Your task to perform on an android device: Search for sushi restaurants on Maps Image 0: 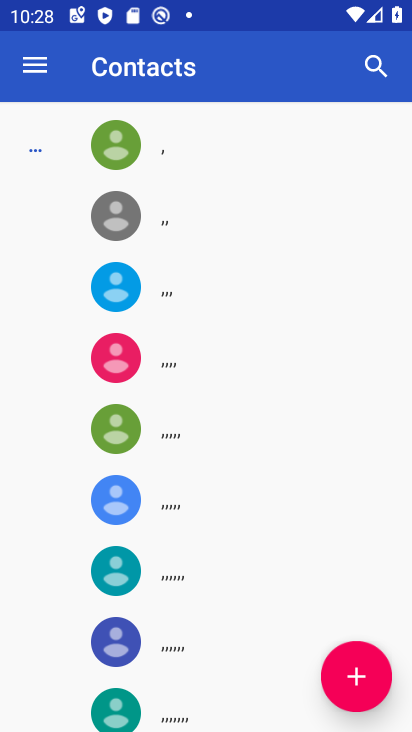
Step 0: press home button
Your task to perform on an android device: Search for sushi restaurants on Maps Image 1: 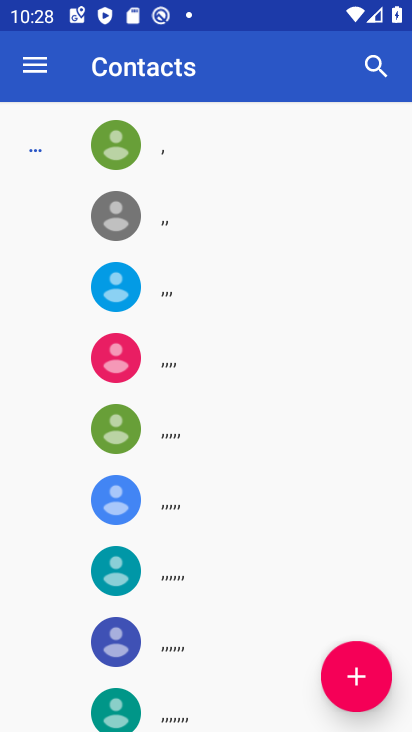
Step 1: press home button
Your task to perform on an android device: Search for sushi restaurants on Maps Image 2: 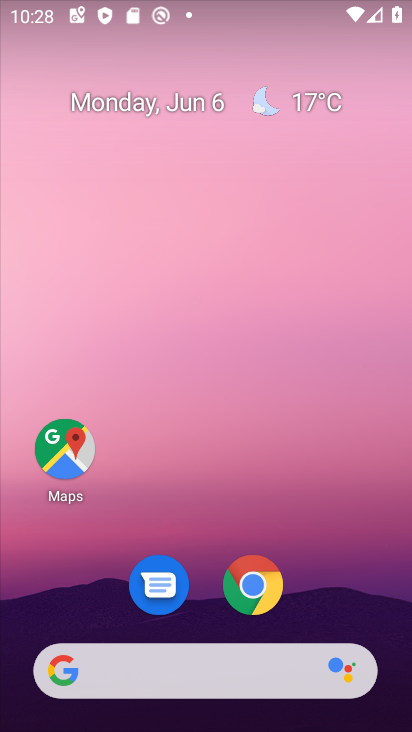
Step 2: click (51, 448)
Your task to perform on an android device: Search for sushi restaurants on Maps Image 3: 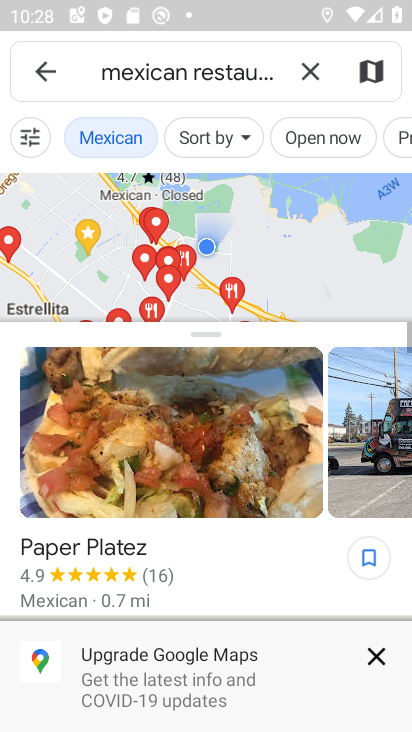
Step 3: click (314, 68)
Your task to perform on an android device: Search for sushi restaurants on Maps Image 4: 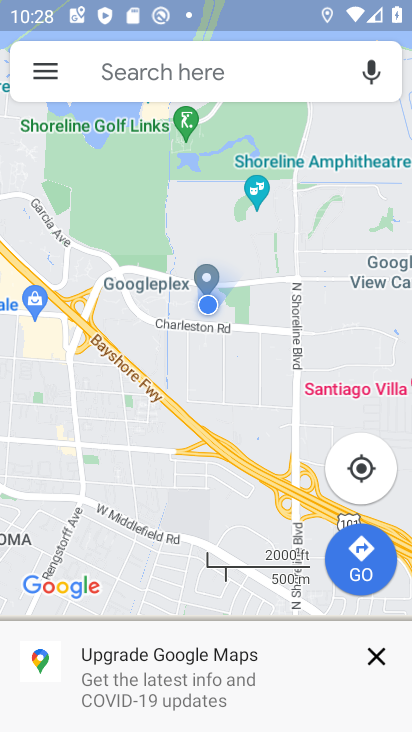
Step 4: click (248, 65)
Your task to perform on an android device: Search for sushi restaurants on Maps Image 5: 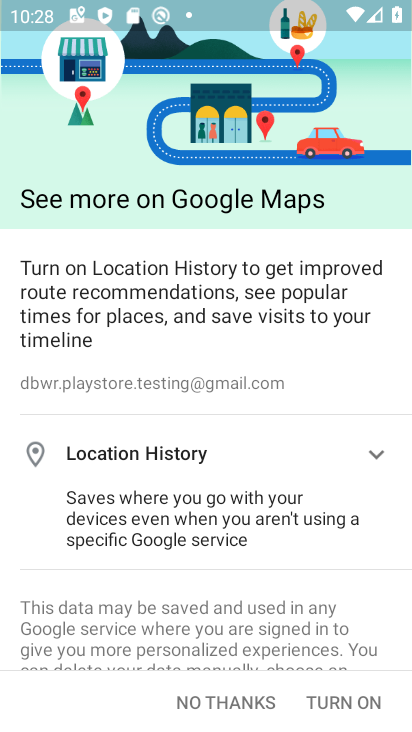
Step 5: click (345, 688)
Your task to perform on an android device: Search for sushi restaurants on Maps Image 6: 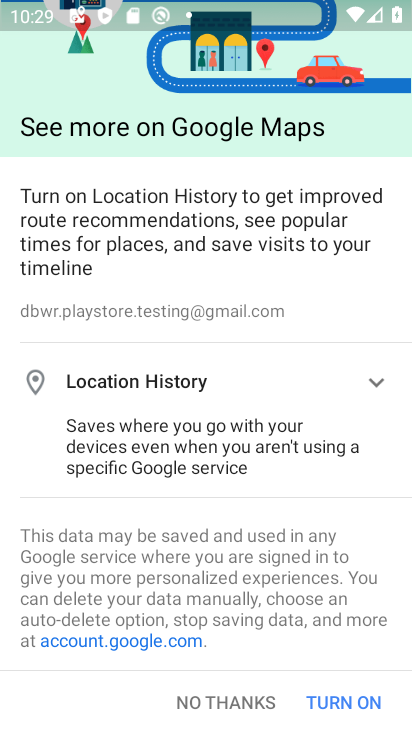
Step 6: click (345, 688)
Your task to perform on an android device: Search for sushi restaurants on Maps Image 7: 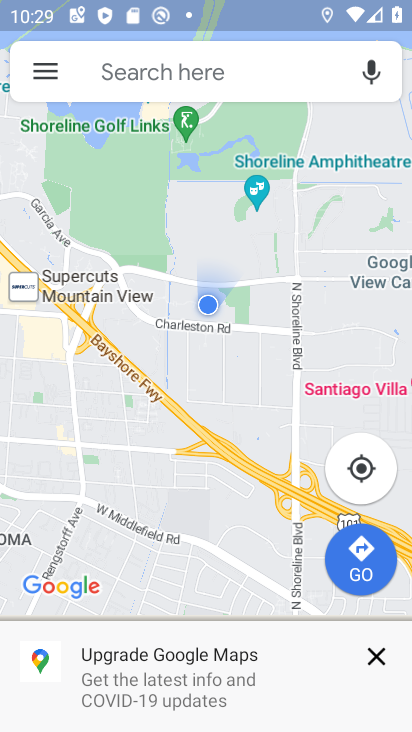
Step 7: click (233, 67)
Your task to perform on an android device: Search for sushi restaurants on Maps Image 8: 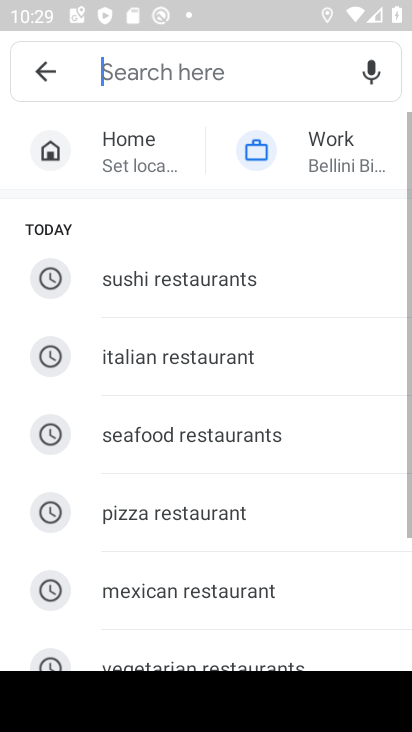
Step 8: click (196, 270)
Your task to perform on an android device: Search for sushi restaurants on Maps Image 9: 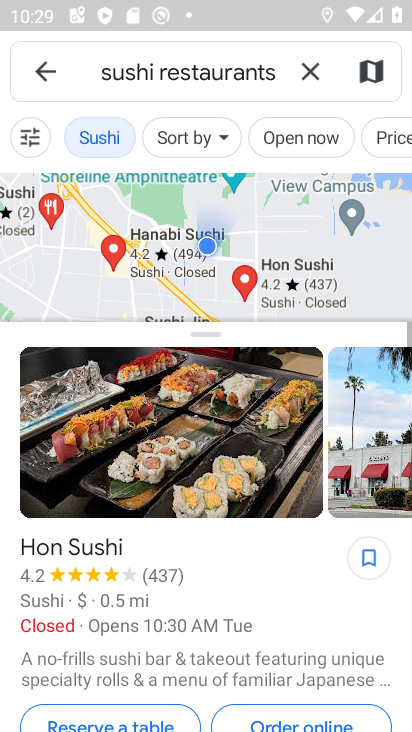
Step 9: task complete